Your task to perform on an android device: turn on data saver in the chrome app Image 0: 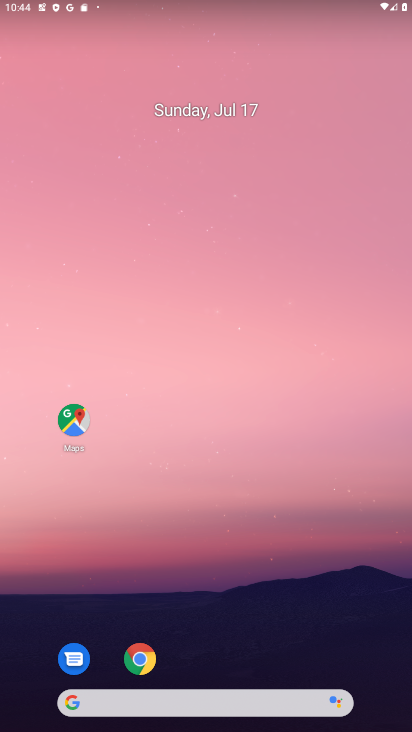
Step 0: click (143, 660)
Your task to perform on an android device: turn on data saver in the chrome app Image 1: 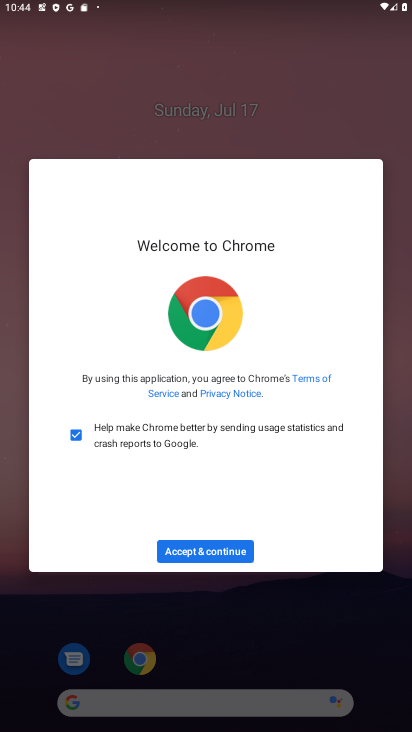
Step 1: click (188, 557)
Your task to perform on an android device: turn on data saver in the chrome app Image 2: 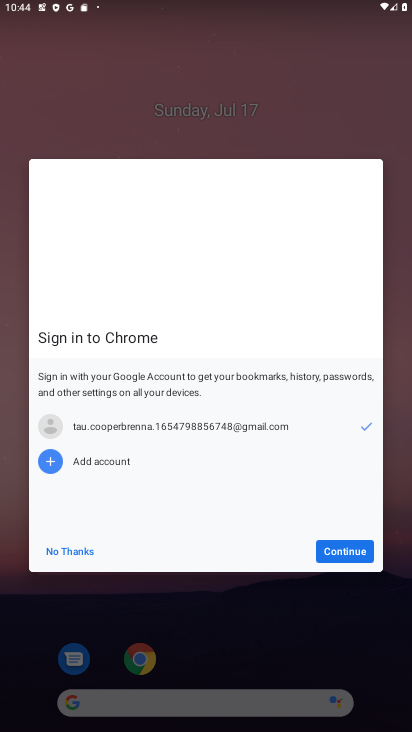
Step 2: click (326, 554)
Your task to perform on an android device: turn on data saver in the chrome app Image 3: 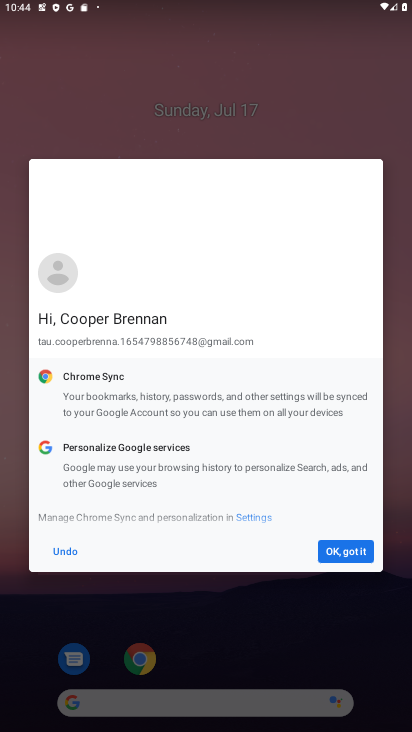
Step 3: click (326, 554)
Your task to perform on an android device: turn on data saver in the chrome app Image 4: 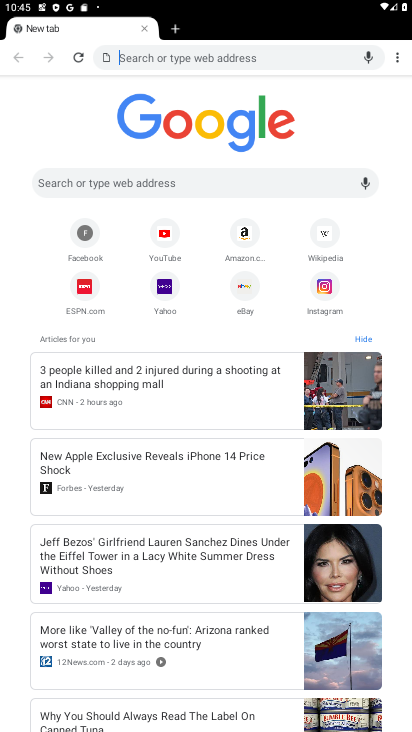
Step 4: click (390, 66)
Your task to perform on an android device: turn on data saver in the chrome app Image 5: 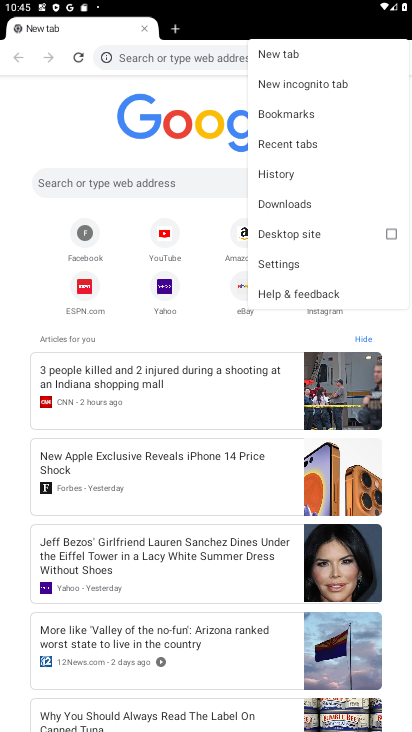
Step 5: click (318, 254)
Your task to perform on an android device: turn on data saver in the chrome app Image 6: 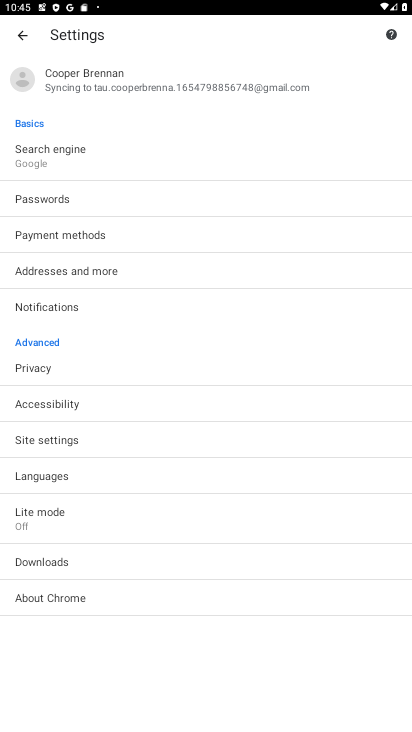
Step 6: click (229, 526)
Your task to perform on an android device: turn on data saver in the chrome app Image 7: 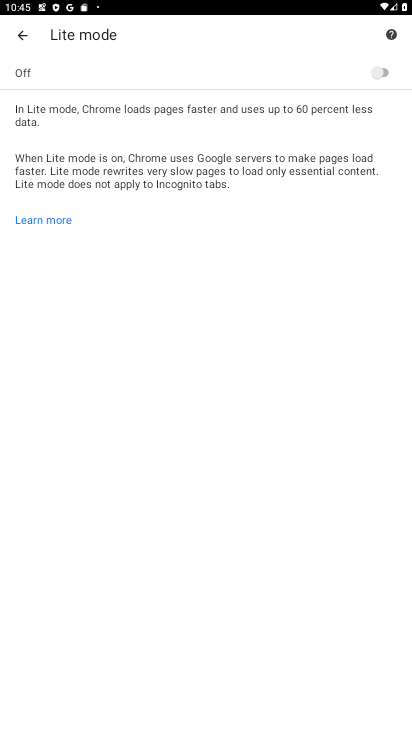
Step 7: click (389, 71)
Your task to perform on an android device: turn on data saver in the chrome app Image 8: 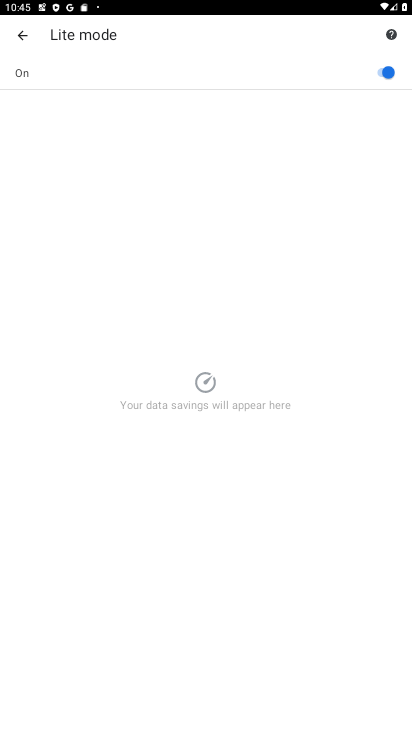
Step 8: task complete